Your task to perform on an android device: open app "Walmart Shopping & Grocery" (install if not already installed), go to login, and select forgot password Image 0: 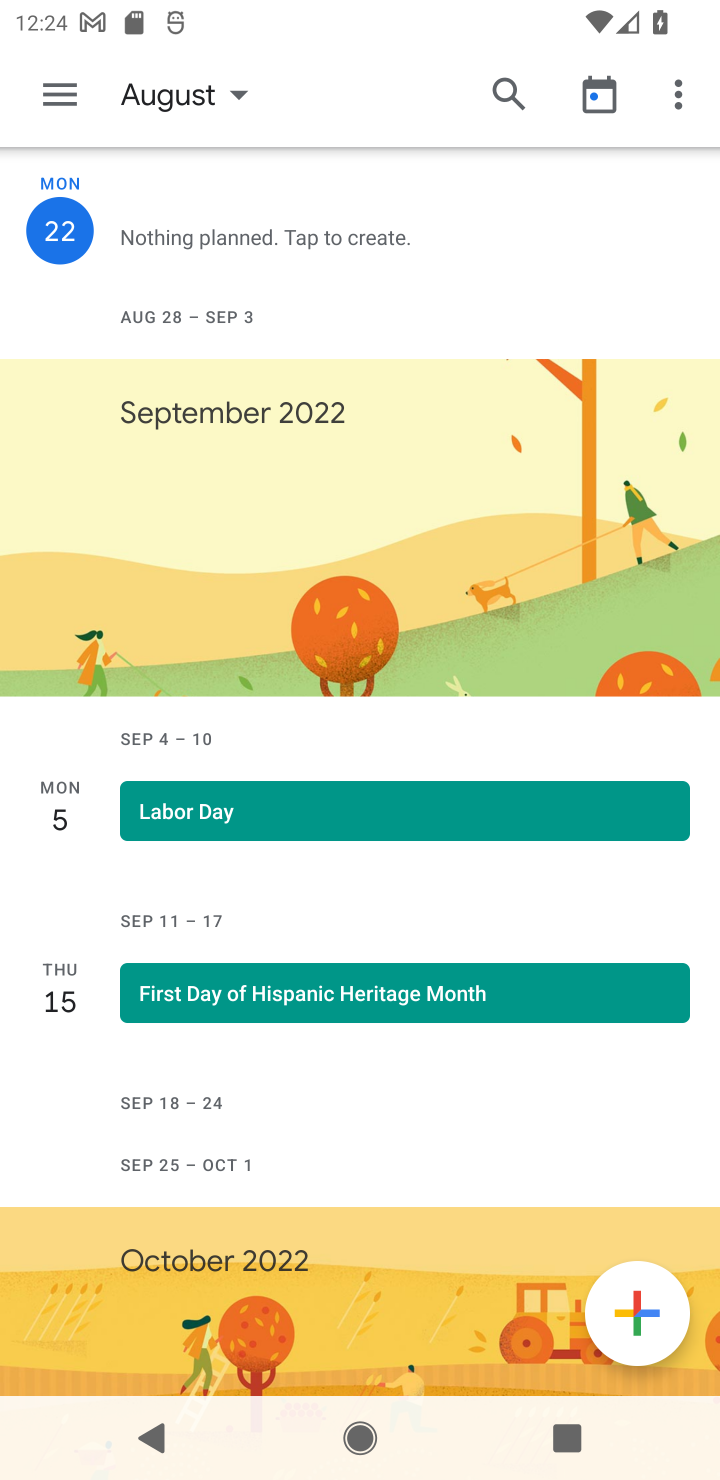
Step 0: press home button
Your task to perform on an android device: open app "Walmart Shopping & Grocery" (install if not already installed), go to login, and select forgot password Image 1: 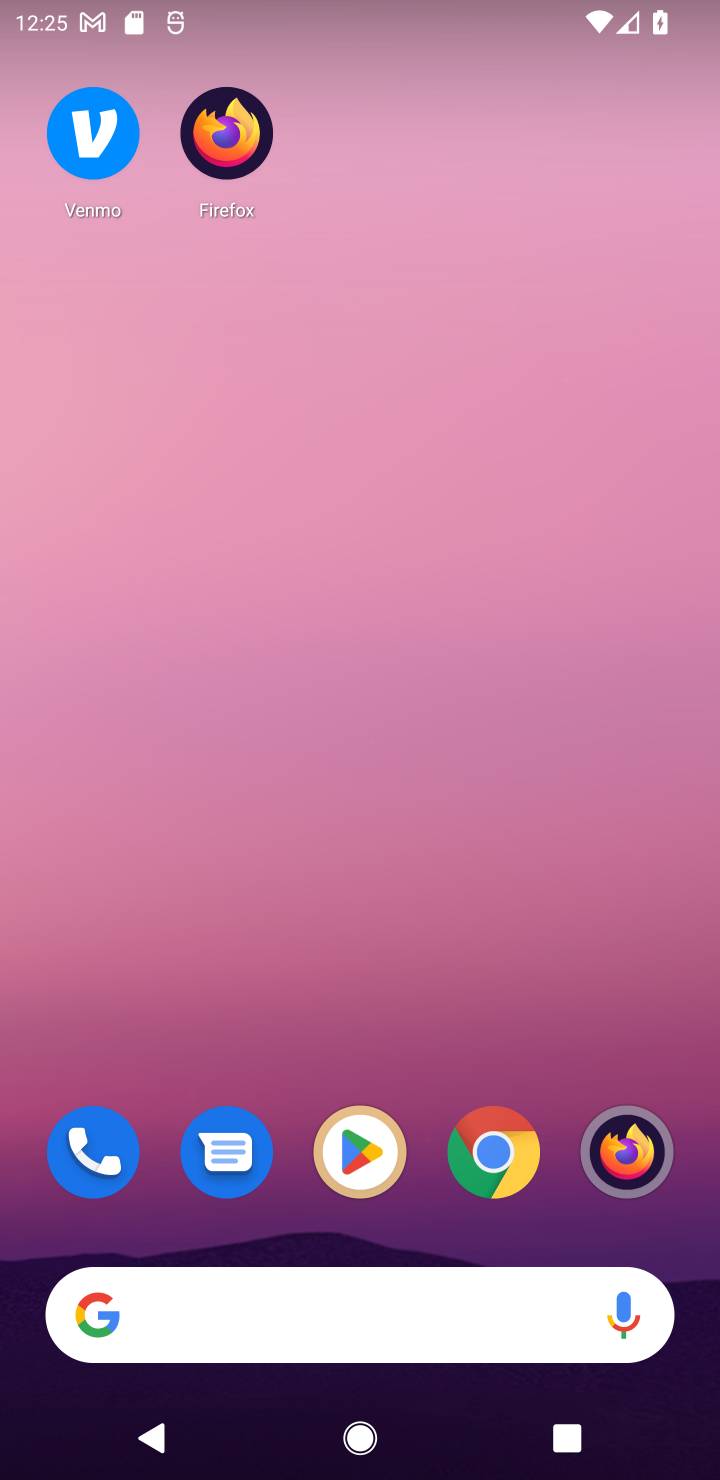
Step 1: click (352, 1157)
Your task to perform on an android device: open app "Walmart Shopping & Grocery" (install if not already installed), go to login, and select forgot password Image 2: 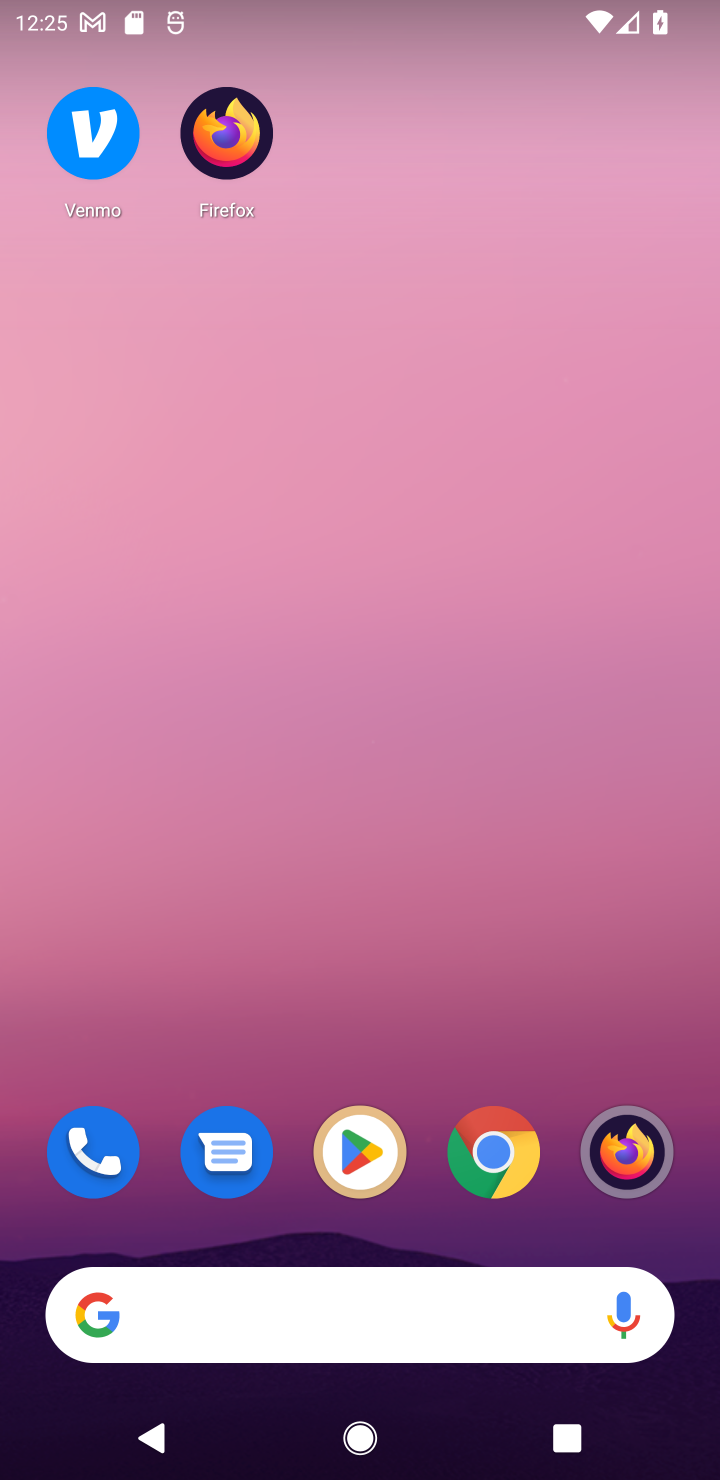
Step 2: click (352, 1132)
Your task to perform on an android device: open app "Walmart Shopping & Grocery" (install if not already installed), go to login, and select forgot password Image 3: 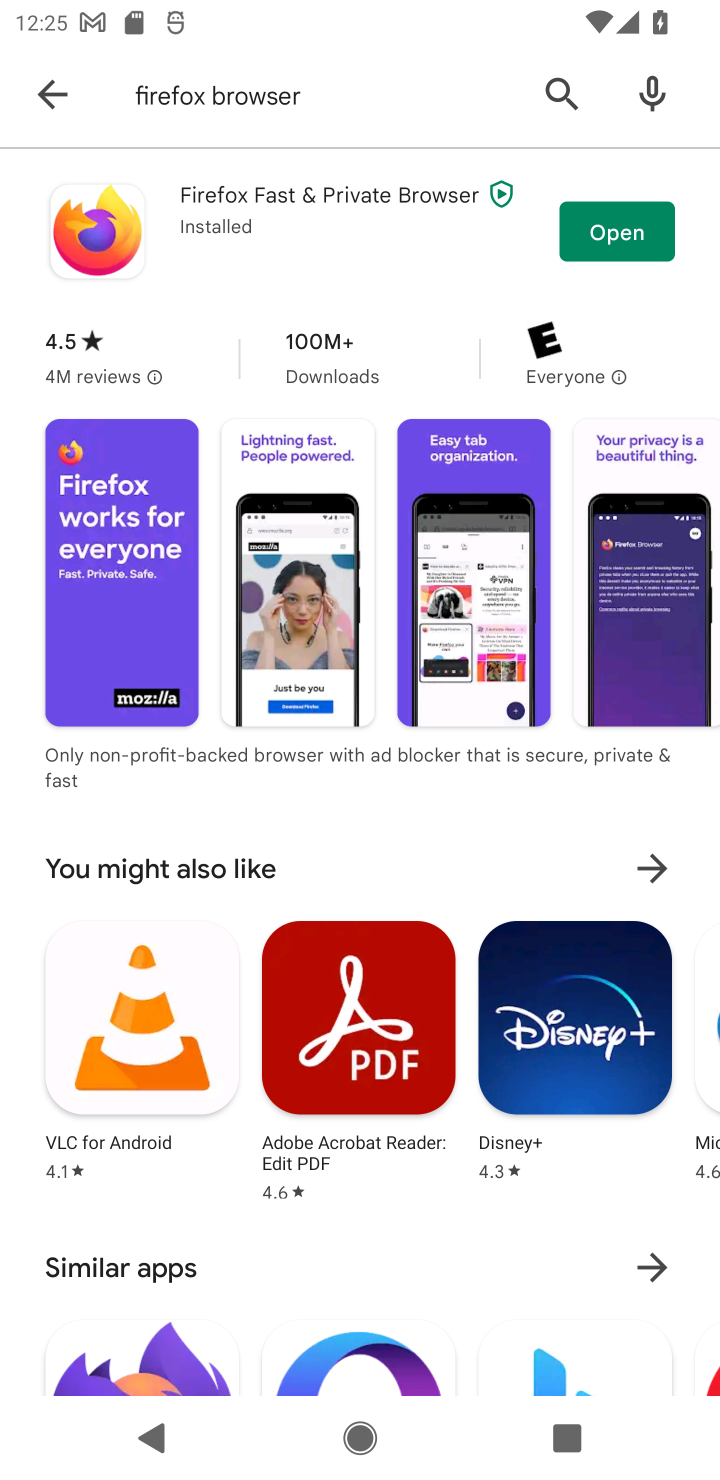
Step 3: click (52, 93)
Your task to perform on an android device: open app "Walmart Shopping & Grocery" (install if not already installed), go to login, and select forgot password Image 4: 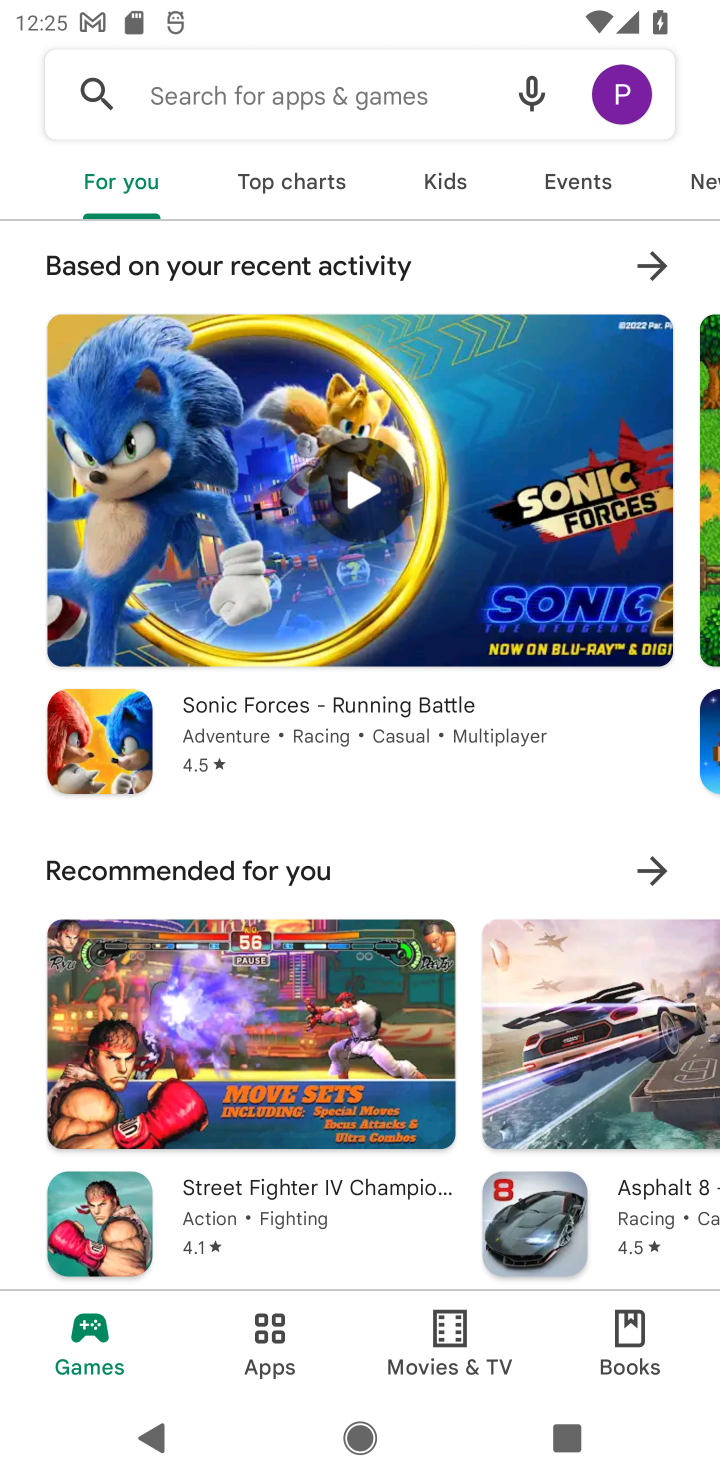
Step 4: click (229, 88)
Your task to perform on an android device: open app "Walmart Shopping & Grocery" (install if not already installed), go to login, and select forgot password Image 5: 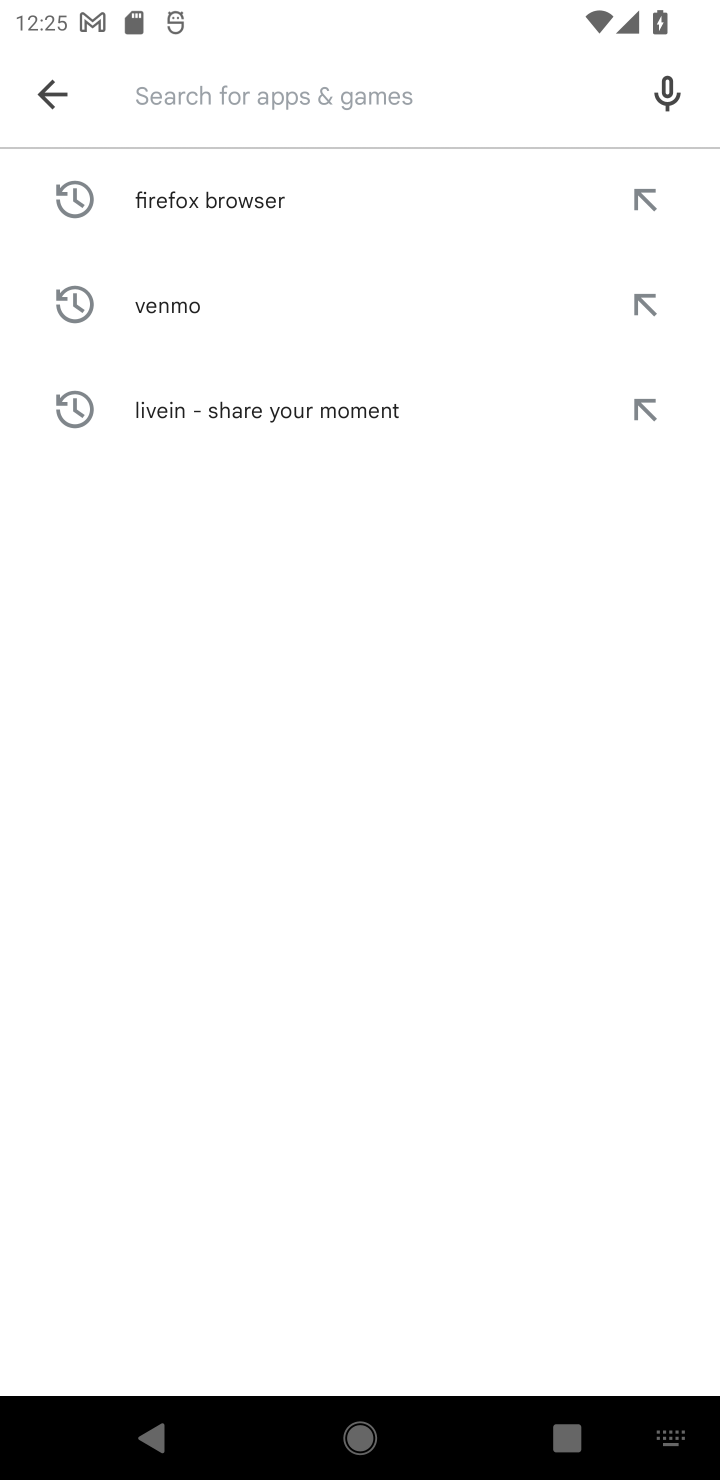
Step 5: type "Walmart Shopping & Grocery"
Your task to perform on an android device: open app "Walmart Shopping & Grocery" (install if not already installed), go to login, and select forgot password Image 6: 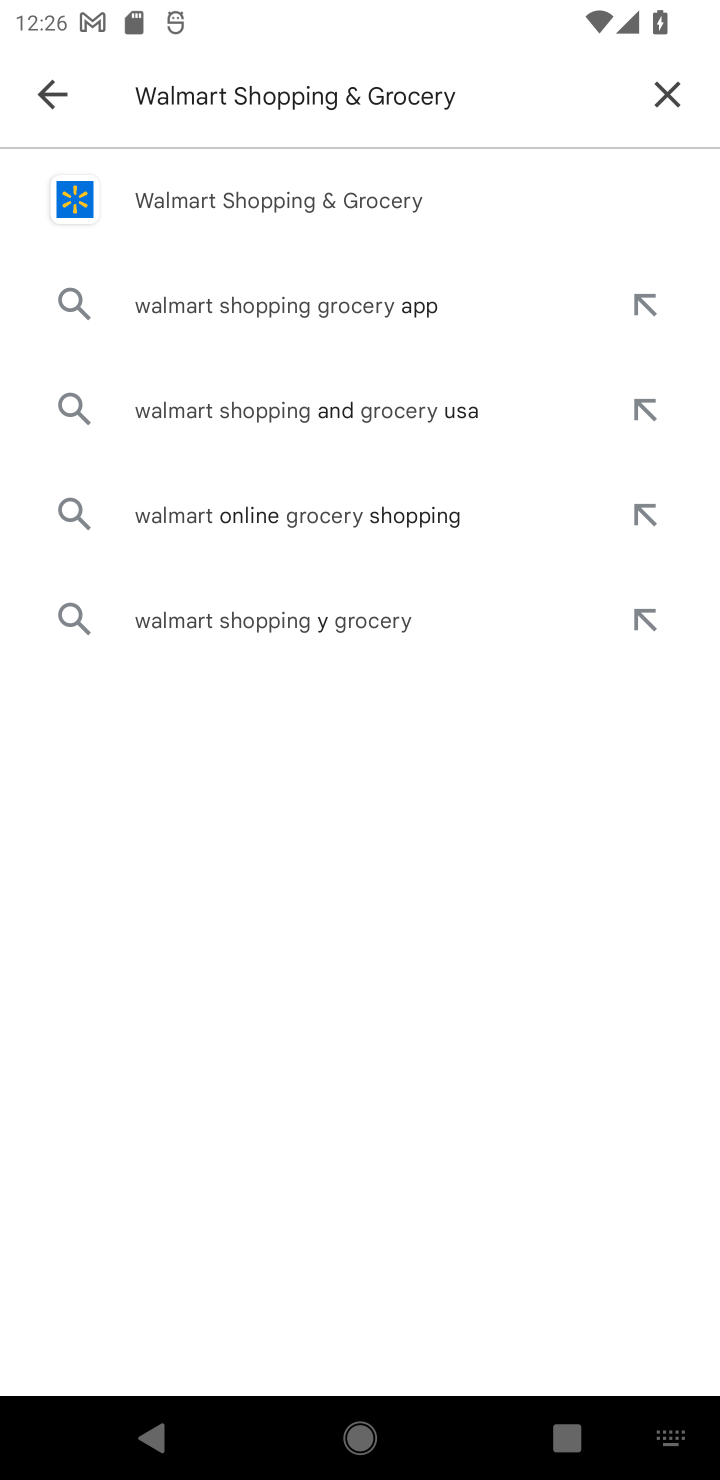
Step 6: click (351, 196)
Your task to perform on an android device: open app "Walmart Shopping & Grocery" (install if not already installed), go to login, and select forgot password Image 7: 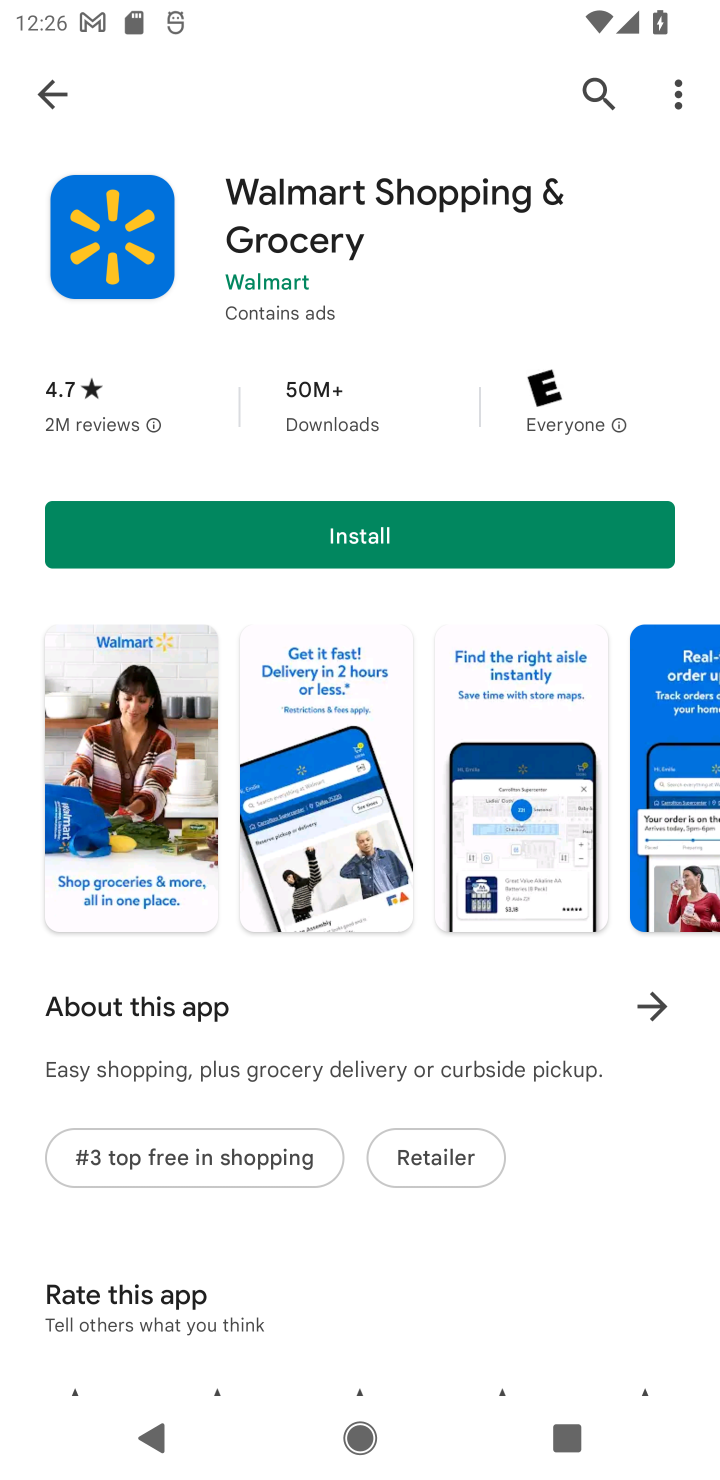
Step 7: click (377, 530)
Your task to perform on an android device: open app "Walmart Shopping & Grocery" (install if not already installed), go to login, and select forgot password Image 8: 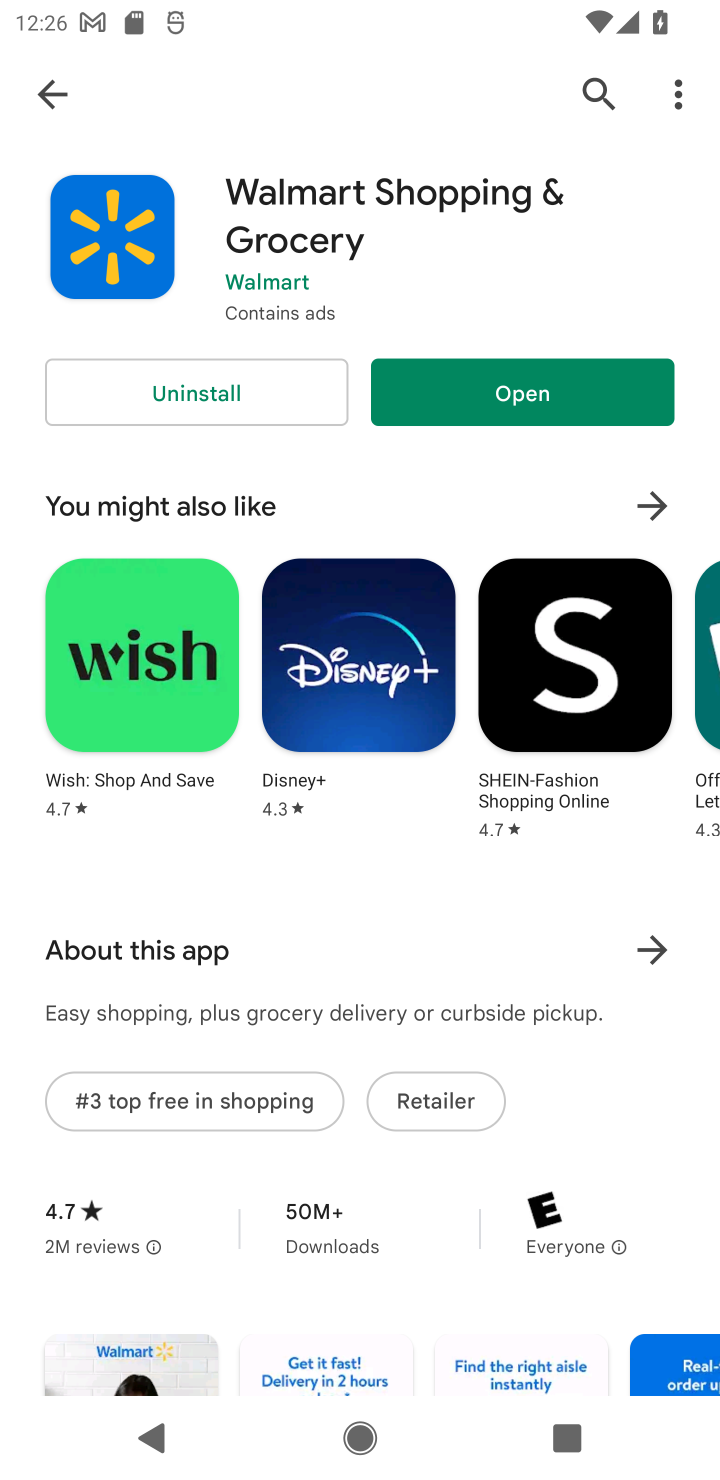
Step 8: click (511, 368)
Your task to perform on an android device: open app "Walmart Shopping & Grocery" (install if not already installed), go to login, and select forgot password Image 9: 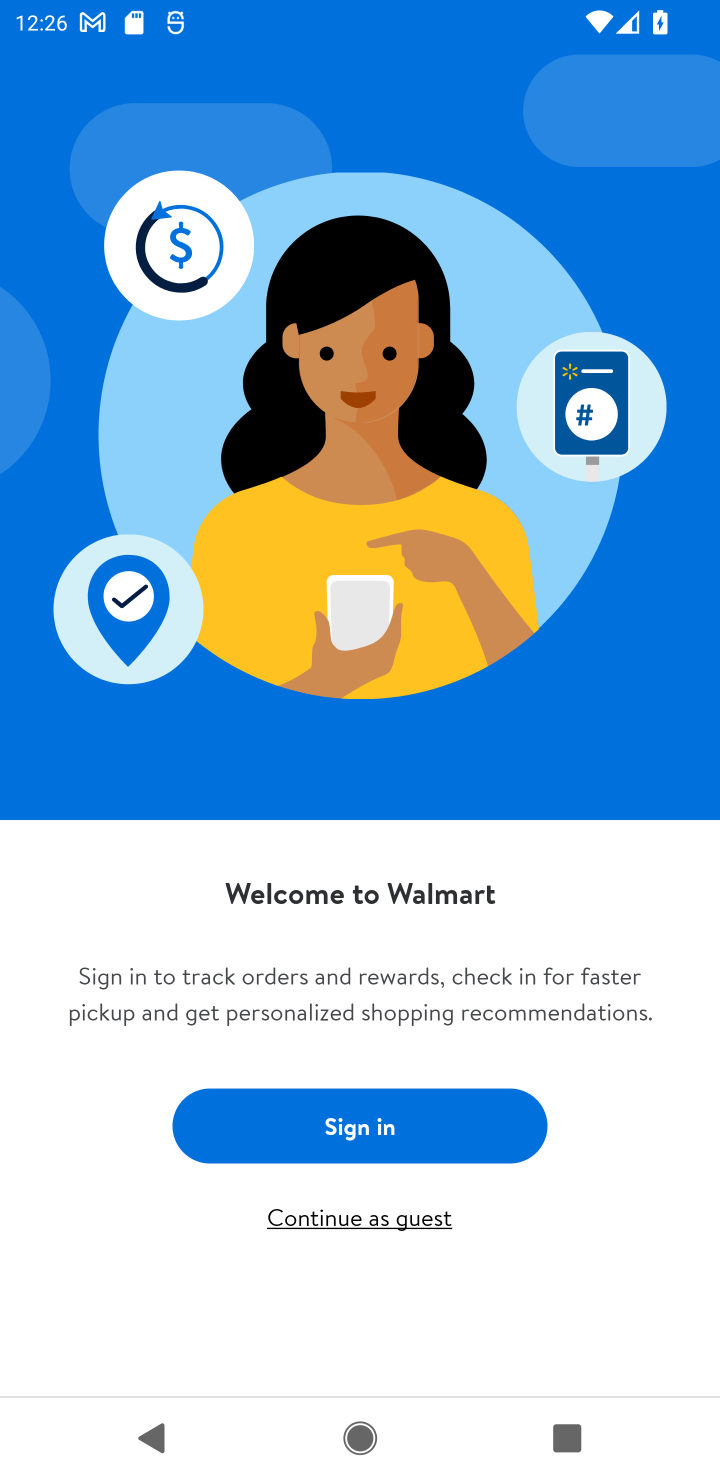
Step 9: task complete